Your task to perform on an android device: Go to sound settings Image 0: 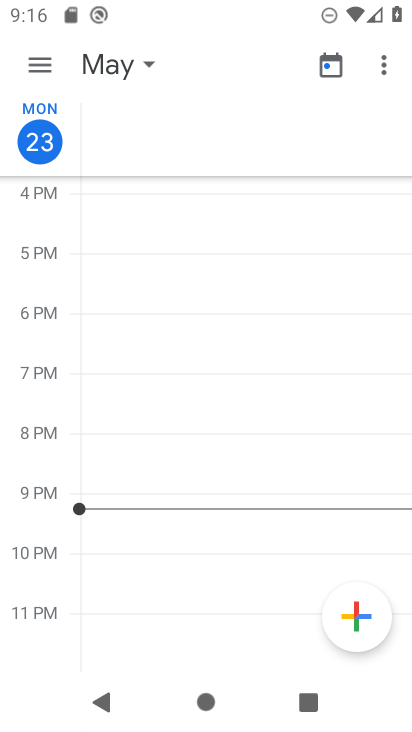
Step 0: press home button
Your task to perform on an android device: Go to sound settings Image 1: 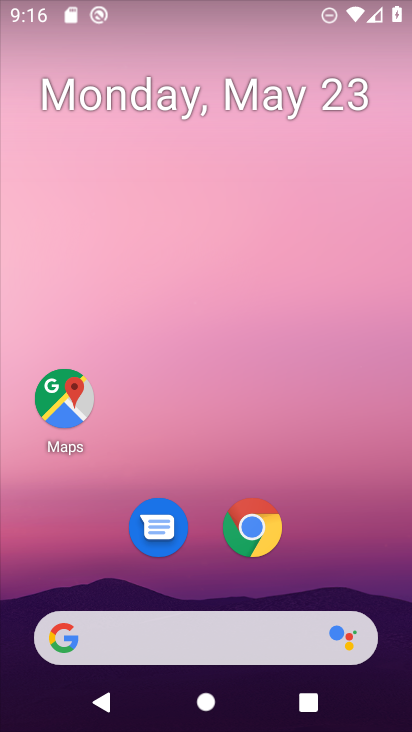
Step 1: drag from (179, 440) to (204, 45)
Your task to perform on an android device: Go to sound settings Image 2: 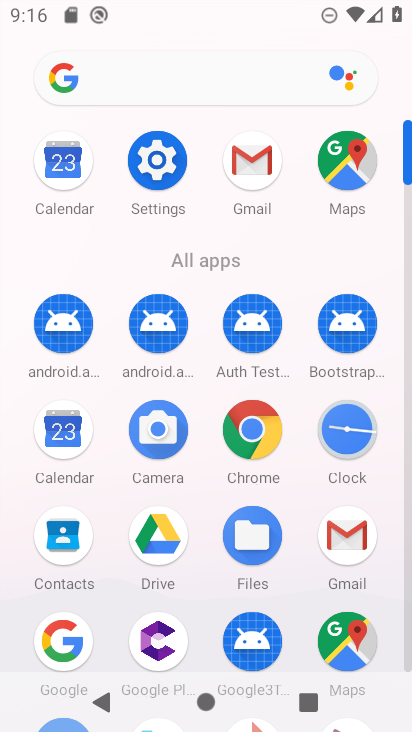
Step 2: click (173, 142)
Your task to perform on an android device: Go to sound settings Image 3: 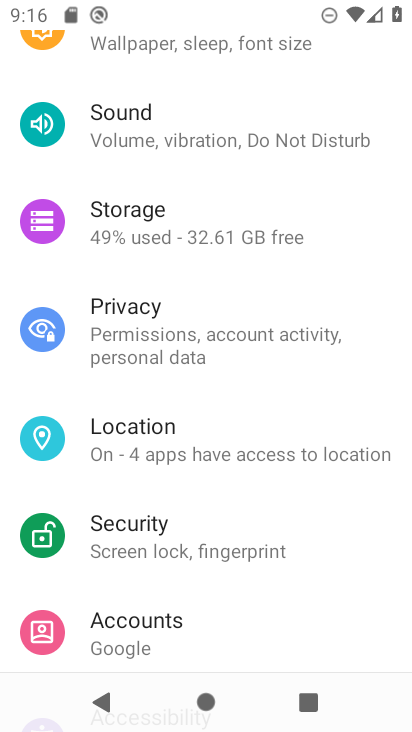
Step 3: click (230, 137)
Your task to perform on an android device: Go to sound settings Image 4: 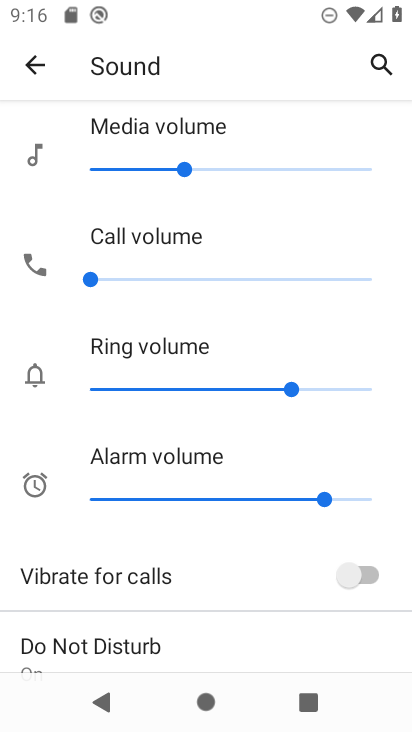
Step 4: task complete